Your task to perform on an android device: turn on the 24-hour format for clock Image 0: 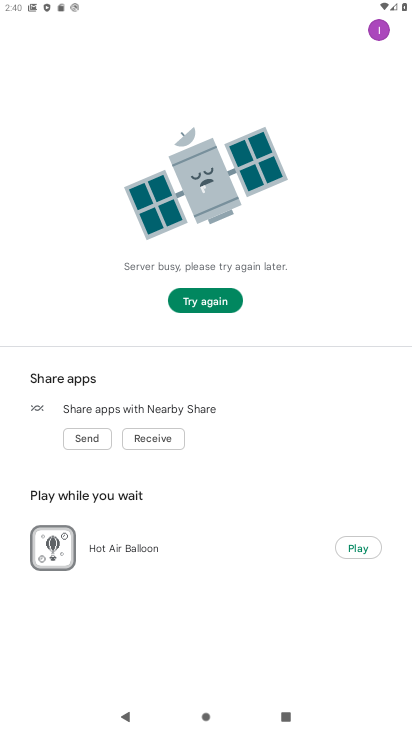
Step 0: press home button
Your task to perform on an android device: turn on the 24-hour format for clock Image 1: 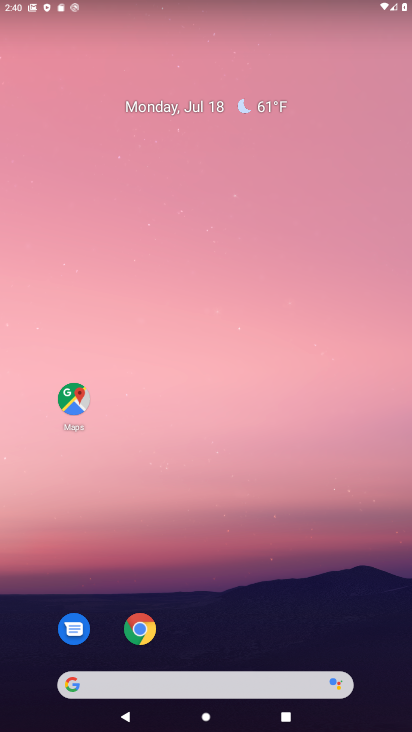
Step 1: drag from (197, 682) to (339, 3)
Your task to perform on an android device: turn on the 24-hour format for clock Image 2: 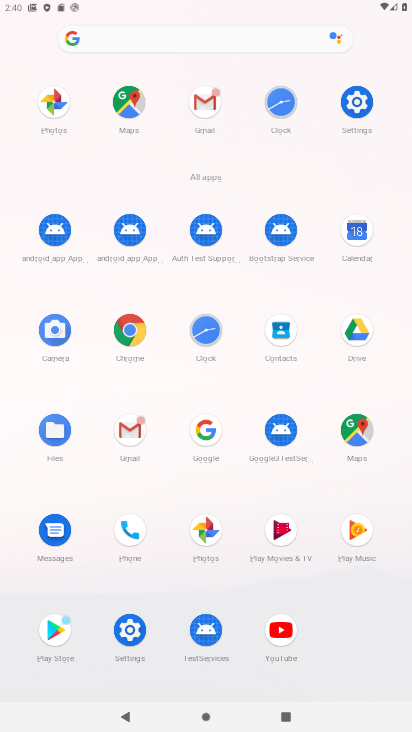
Step 2: click (205, 326)
Your task to perform on an android device: turn on the 24-hour format for clock Image 3: 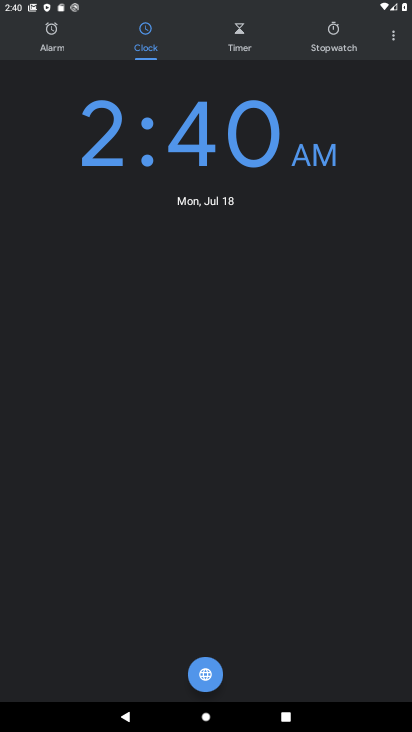
Step 3: click (393, 37)
Your task to perform on an android device: turn on the 24-hour format for clock Image 4: 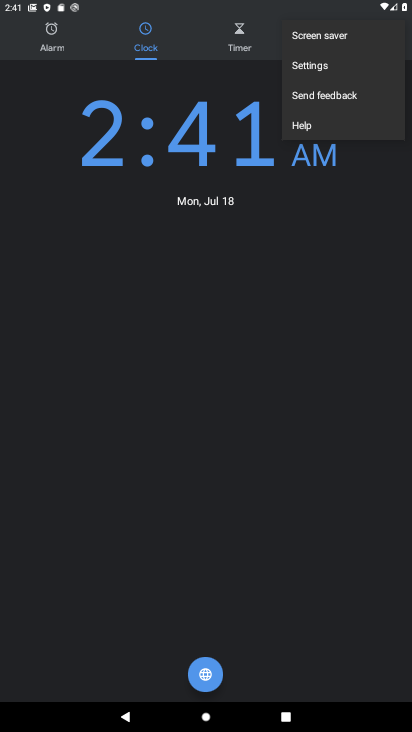
Step 4: click (316, 64)
Your task to perform on an android device: turn on the 24-hour format for clock Image 5: 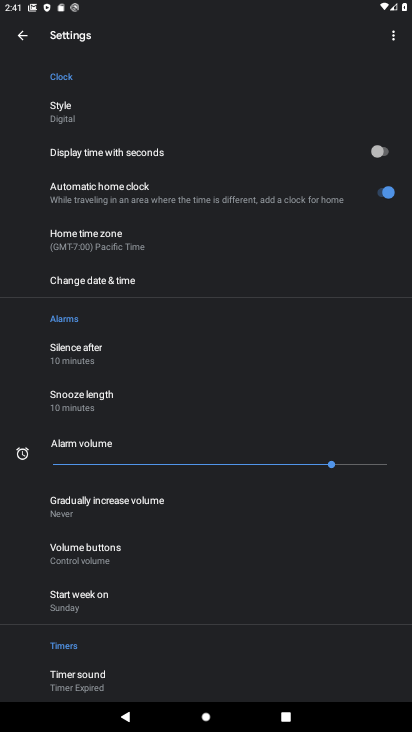
Step 5: click (115, 279)
Your task to perform on an android device: turn on the 24-hour format for clock Image 6: 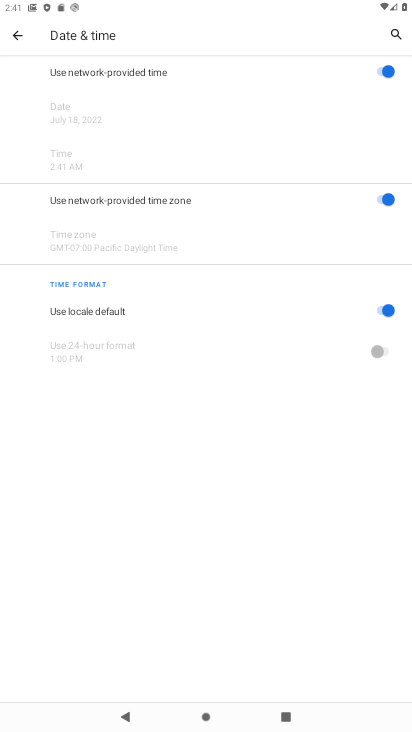
Step 6: click (383, 310)
Your task to perform on an android device: turn on the 24-hour format for clock Image 7: 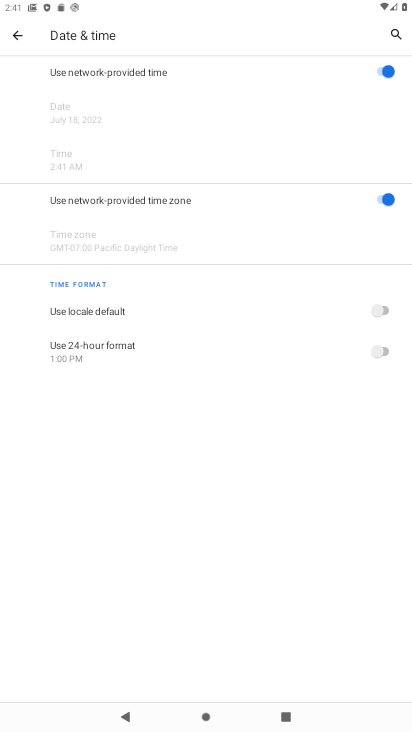
Step 7: click (379, 343)
Your task to perform on an android device: turn on the 24-hour format for clock Image 8: 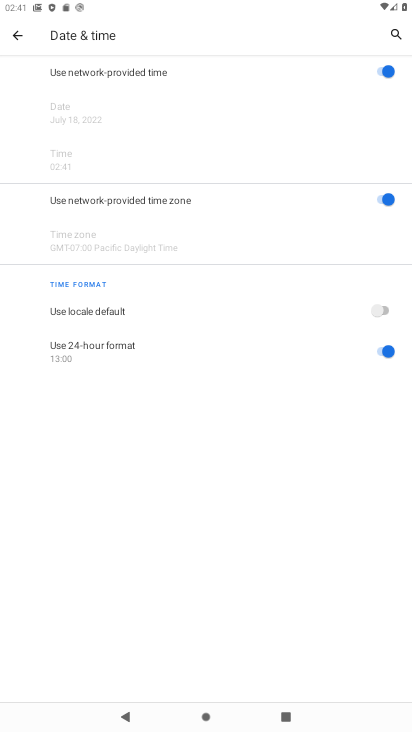
Step 8: task complete